Your task to perform on an android device: toggle show notifications on the lock screen Image 0: 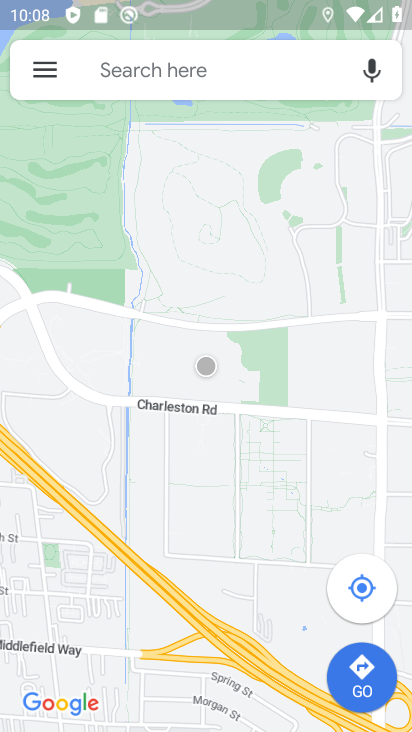
Step 0: press home button
Your task to perform on an android device: toggle show notifications on the lock screen Image 1: 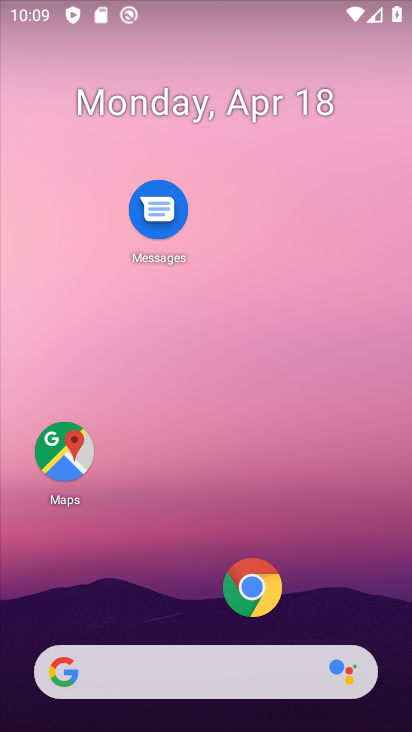
Step 1: drag from (163, 512) to (379, 12)
Your task to perform on an android device: toggle show notifications on the lock screen Image 2: 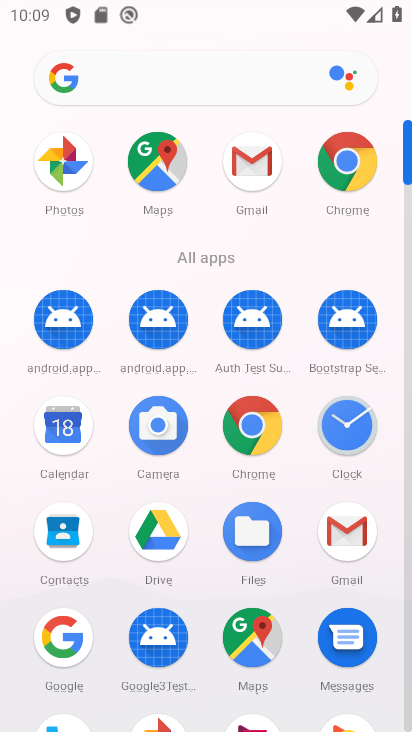
Step 2: drag from (216, 595) to (257, 144)
Your task to perform on an android device: toggle show notifications on the lock screen Image 3: 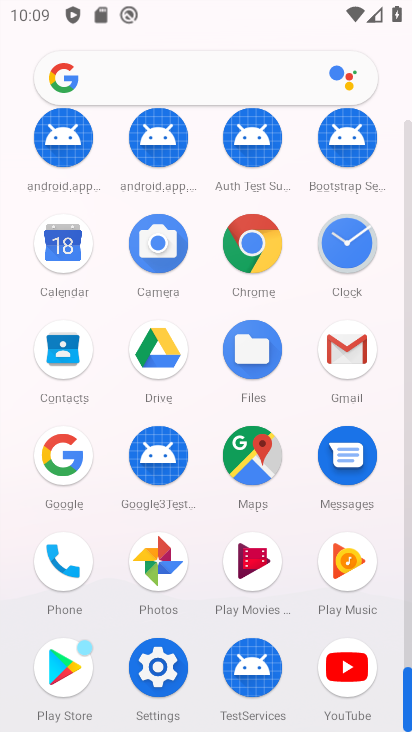
Step 3: click (154, 679)
Your task to perform on an android device: toggle show notifications on the lock screen Image 4: 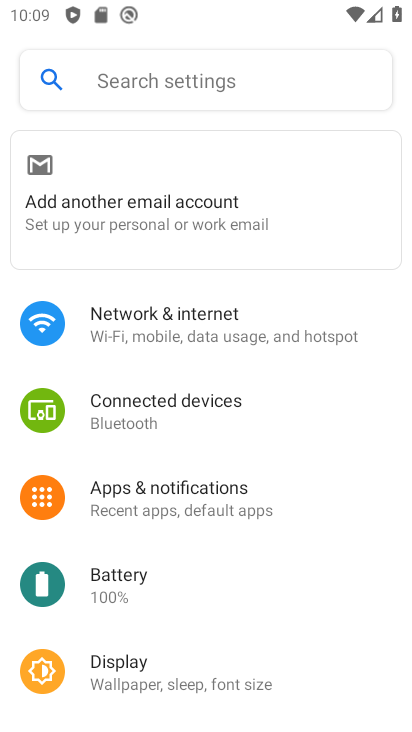
Step 4: click (180, 502)
Your task to perform on an android device: toggle show notifications on the lock screen Image 5: 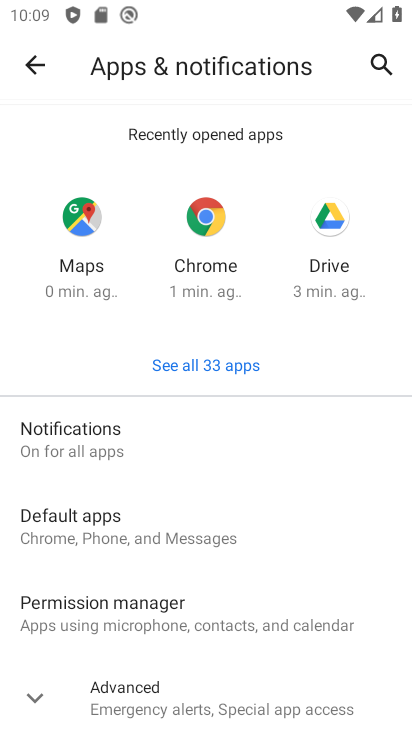
Step 5: click (126, 452)
Your task to perform on an android device: toggle show notifications on the lock screen Image 6: 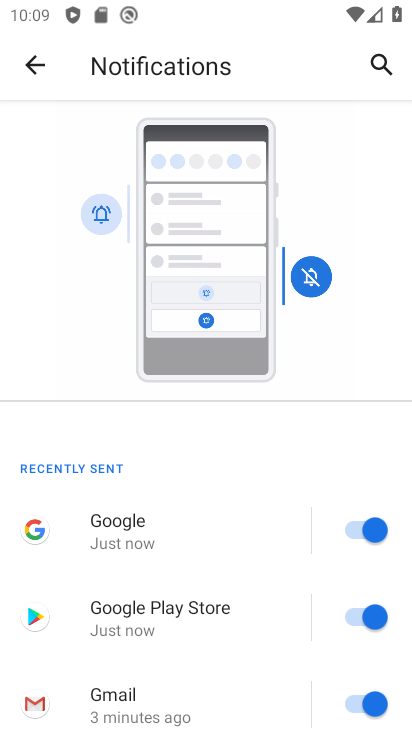
Step 6: drag from (185, 586) to (345, 58)
Your task to perform on an android device: toggle show notifications on the lock screen Image 7: 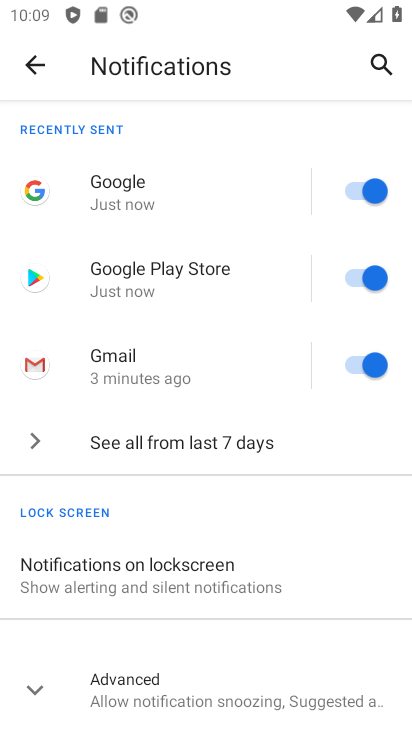
Step 7: click (203, 575)
Your task to perform on an android device: toggle show notifications on the lock screen Image 8: 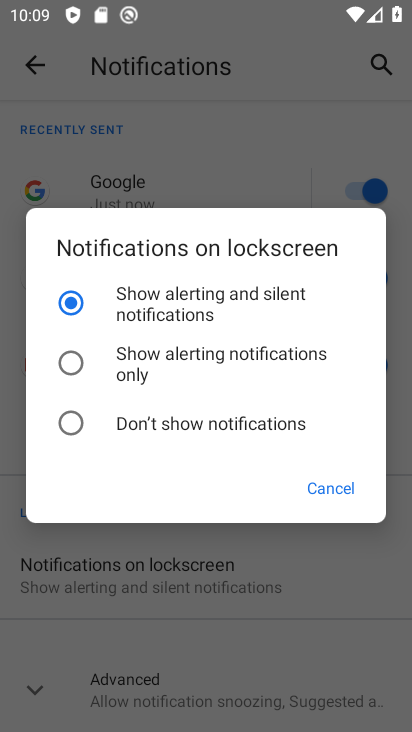
Step 8: click (60, 422)
Your task to perform on an android device: toggle show notifications on the lock screen Image 9: 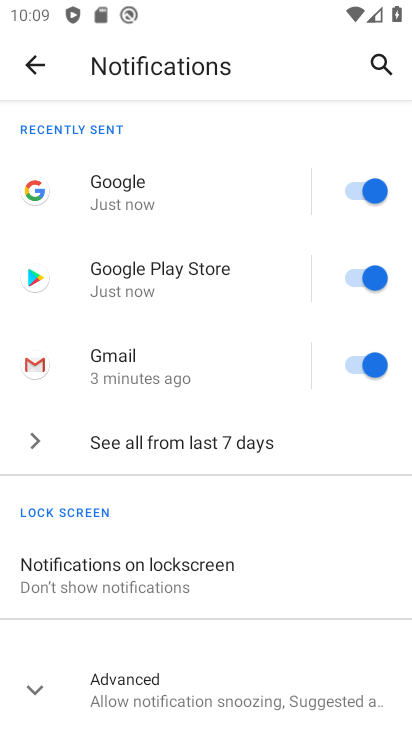
Step 9: task complete